Your task to perform on an android device: Go to Google Image 0: 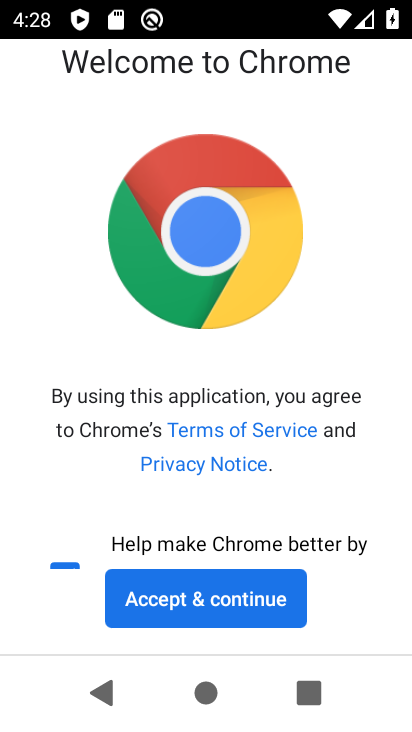
Step 0: click (207, 593)
Your task to perform on an android device: Go to Google Image 1: 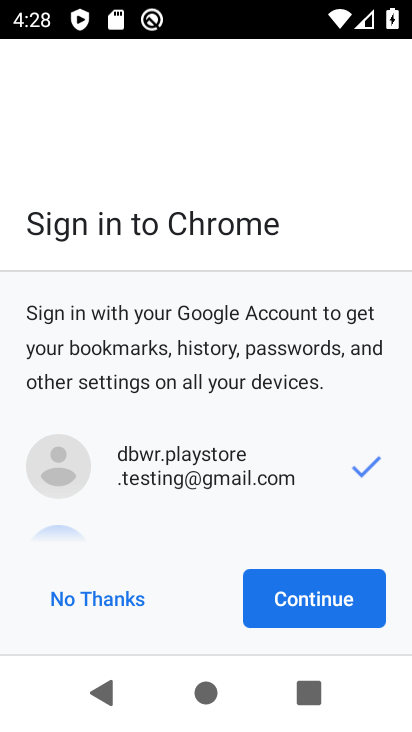
Step 1: click (311, 598)
Your task to perform on an android device: Go to Google Image 2: 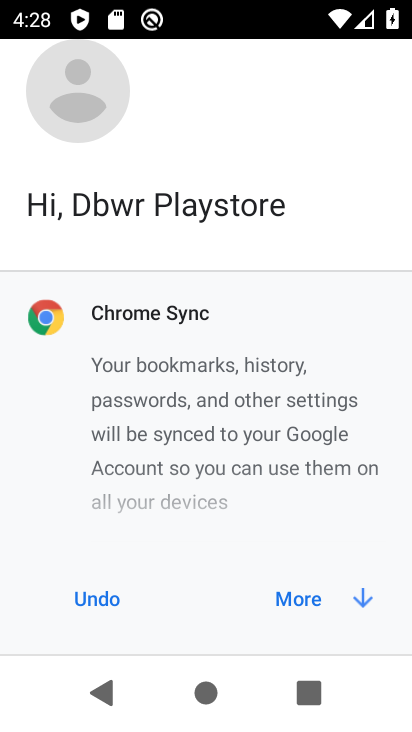
Step 2: click (311, 598)
Your task to perform on an android device: Go to Google Image 3: 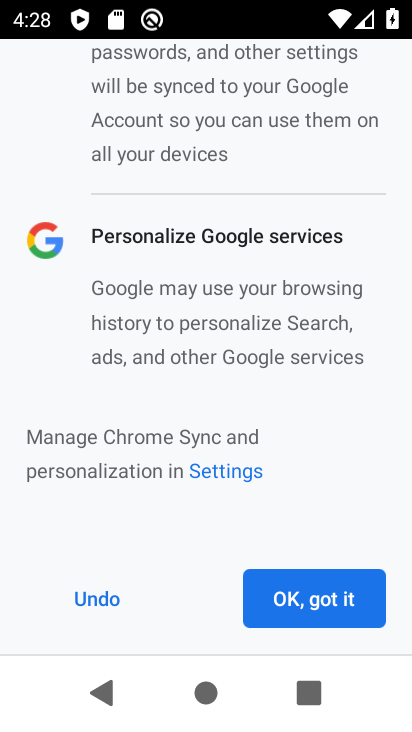
Step 3: click (311, 598)
Your task to perform on an android device: Go to Google Image 4: 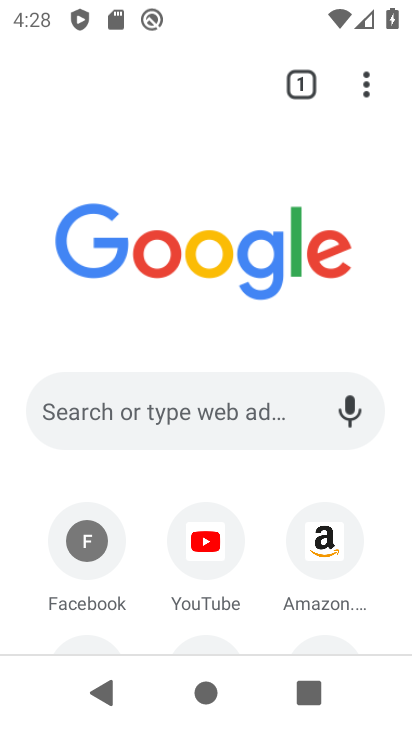
Step 4: task complete